Your task to perform on an android device: Go to Android settings Image 0: 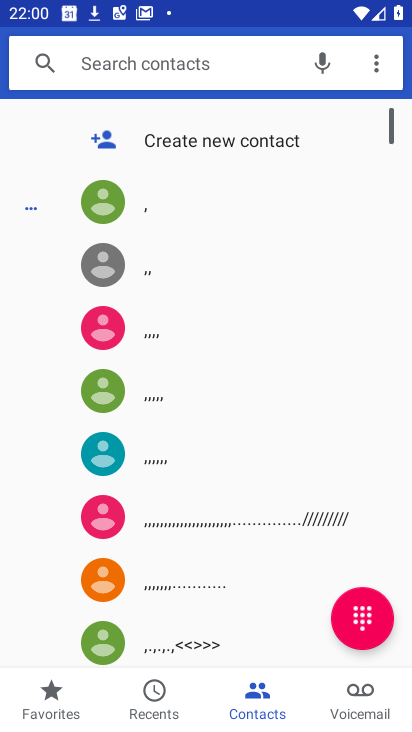
Step 0: press home button
Your task to perform on an android device: Go to Android settings Image 1: 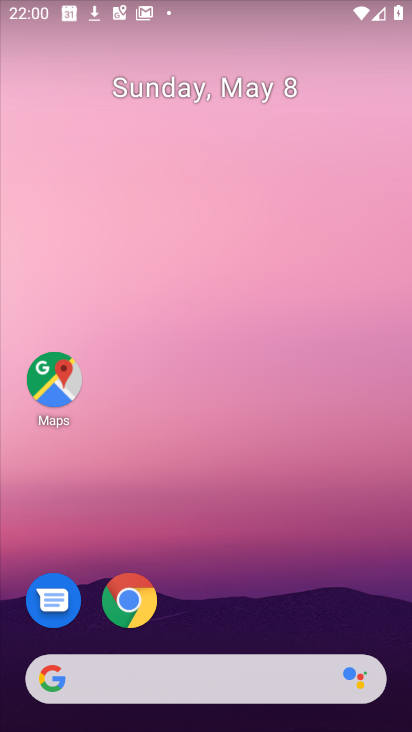
Step 1: drag from (252, 712) to (232, 332)
Your task to perform on an android device: Go to Android settings Image 2: 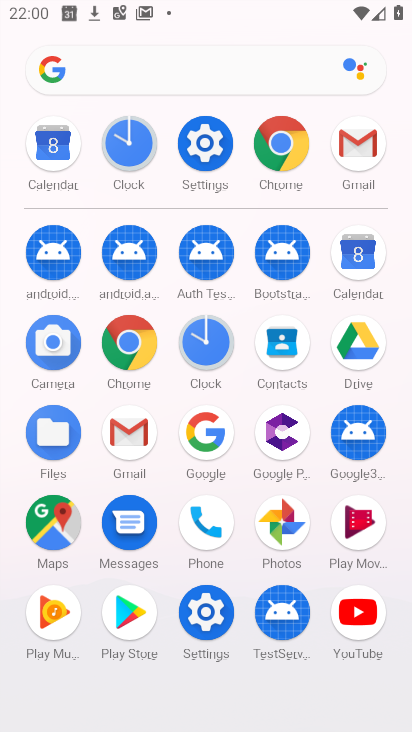
Step 2: click (211, 151)
Your task to perform on an android device: Go to Android settings Image 3: 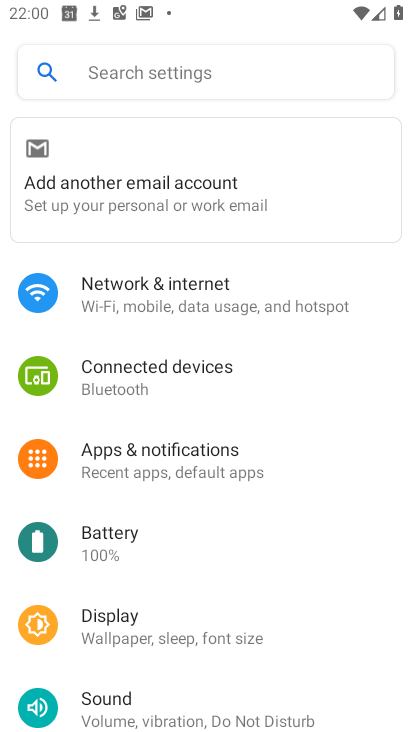
Step 3: click (172, 85)
Your task to perform on an android device: Go to Android settings Image 4: 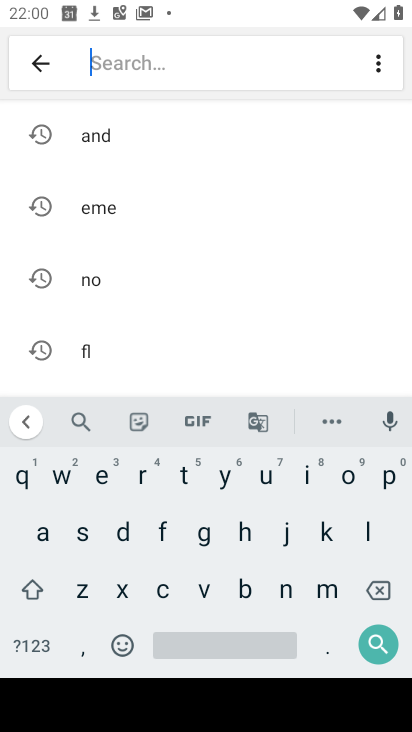
Step 4: click (31, 550)
Your task to perform on an android device: Go to Android settings Image 5: 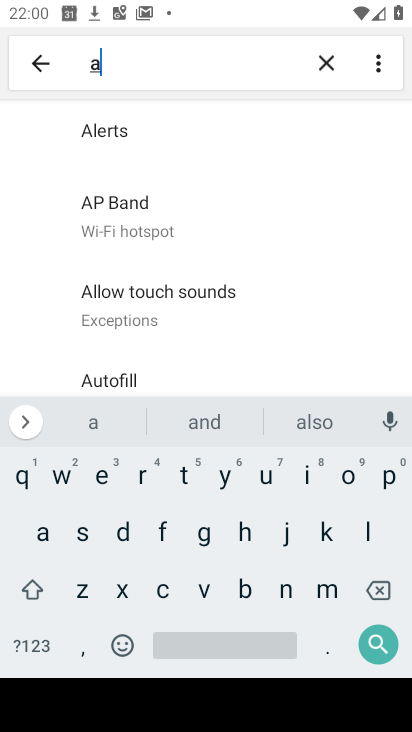
Step 5: click (284, 590)
Your task to perform on an android device: Go to Android settings Image 6: 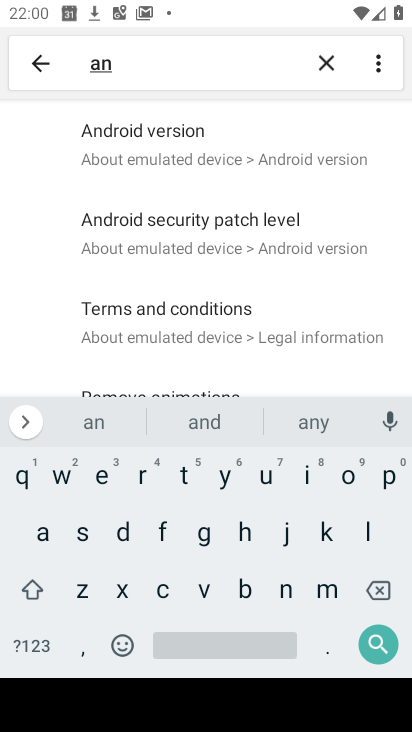
Step 6: click (202, 153)
Your task to perform on an android device: Go to Android settings Image 7: 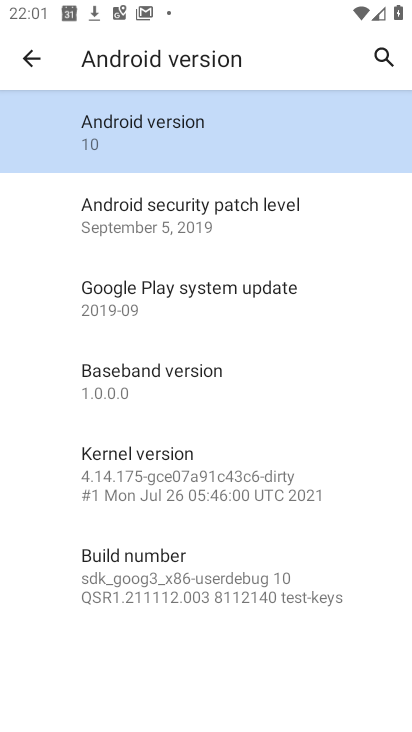
Step 7: task complete